Your task to perform on an android device: Open accessibility settings Image 0: 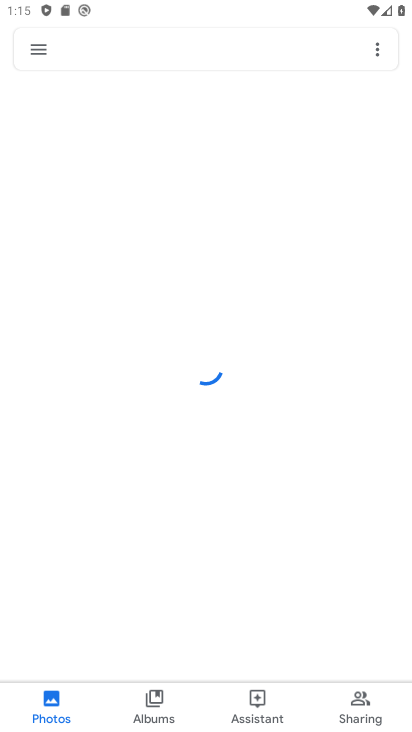
Step 0: press home button
Your task to perform on an android device: Open accessibility settings Image 1: 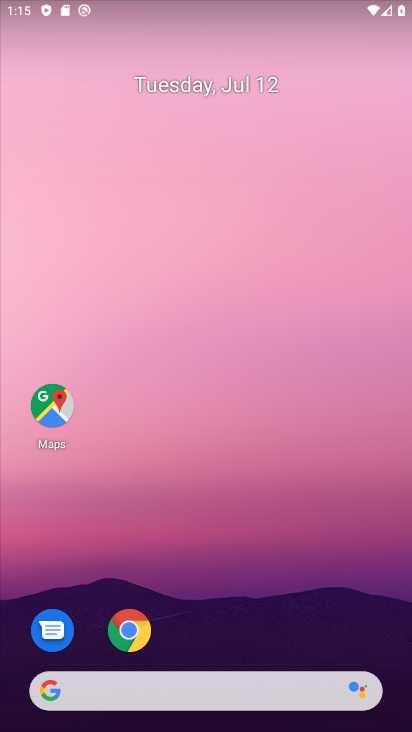
Step 1: drag from (199, 648) to (147, 147)
Your task to perform on an android device: Open accessibility settings Image 2: 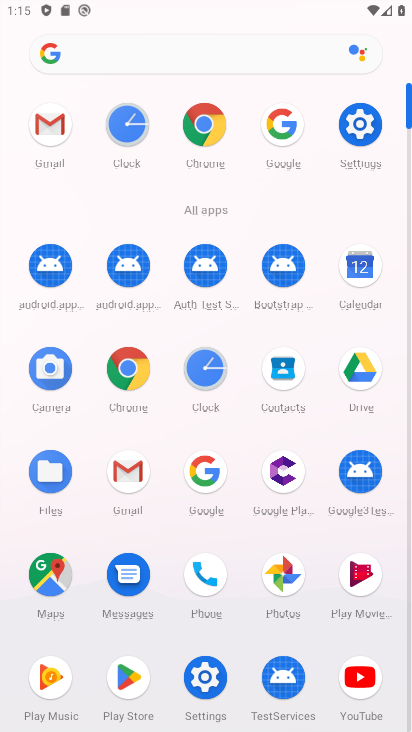
Step 2: click (215, 676)
Your task to perform on an android device: Open accessibility settings Image 3: 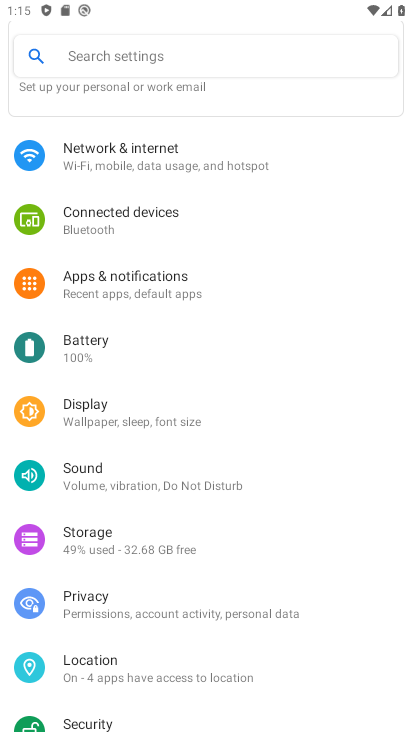
Step 3: drag from (136, 552) to (90, 191)
Your task to perform on an android device: Open accessibility settings Image 4: 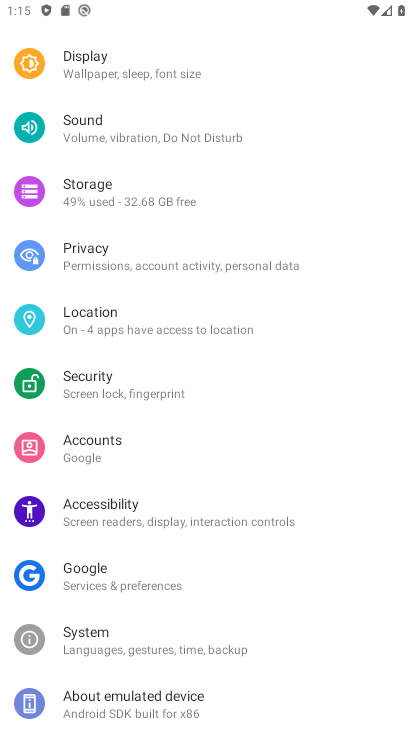
Step 4: click (80, 509)
Your task to perform on an android device: Open accessibility settings Image 5: 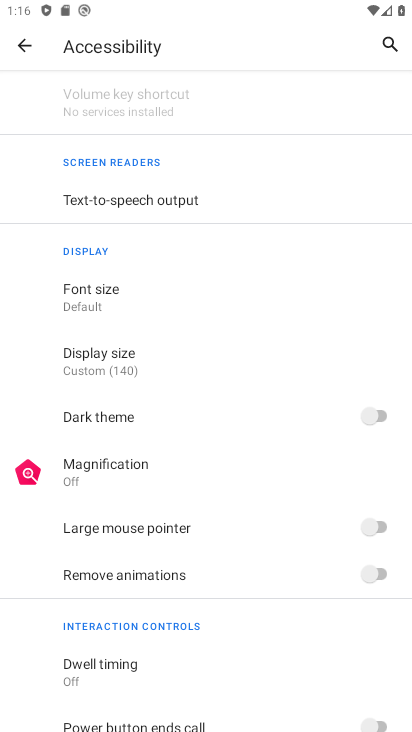
Step 5: task complete